Your task to perform on an android device: Where can I buy a nice beach cooler? Image 0: 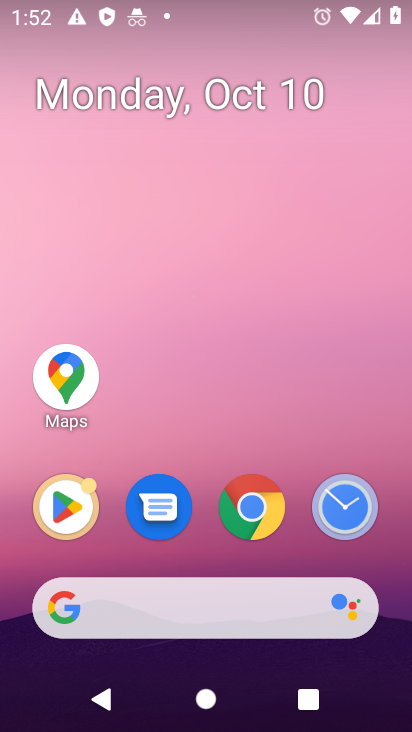
Step 0: press home button
Your task to perform on an android device: Where can I buy a nice beach cooler? Image 1: 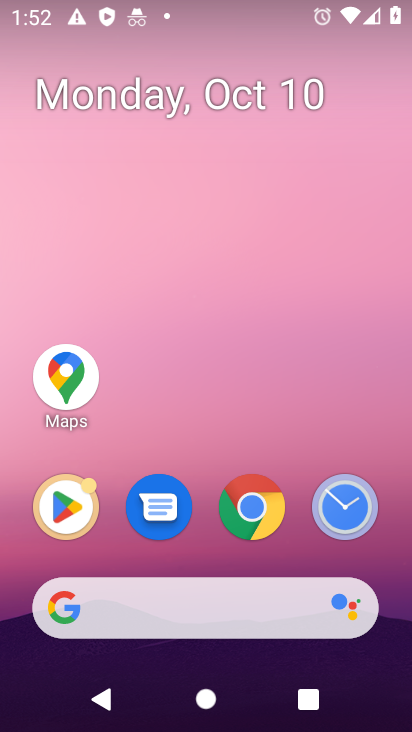
Step 1: click (211, 600)
Your task to perform on an android device: Where can I buy a nice beach cooler? Image 2: 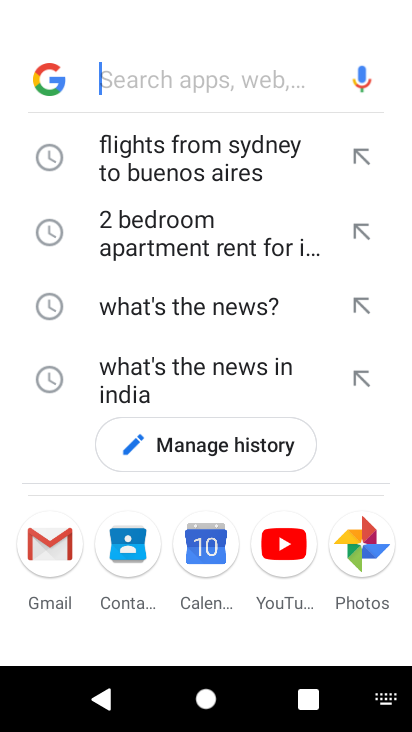
Step 2: type "Where can I buy a nice beach cooler"
Your task to perform on an android device: Where can I buy a nice beach cooler? Image 3: 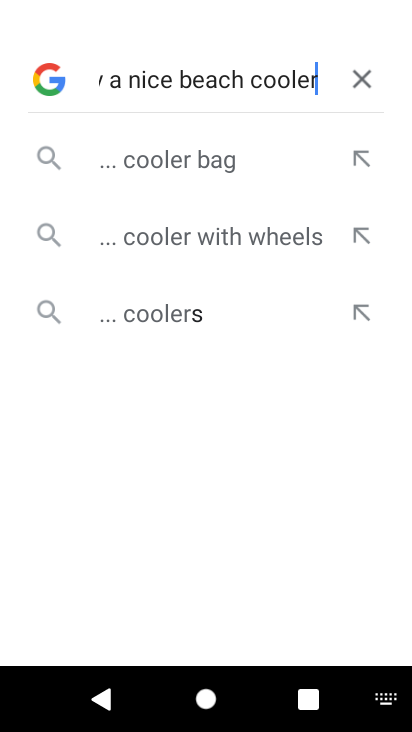
Step 3: press enter
Your task to perform on an android device: Where can I buy a nice beach cooler? Image 4: 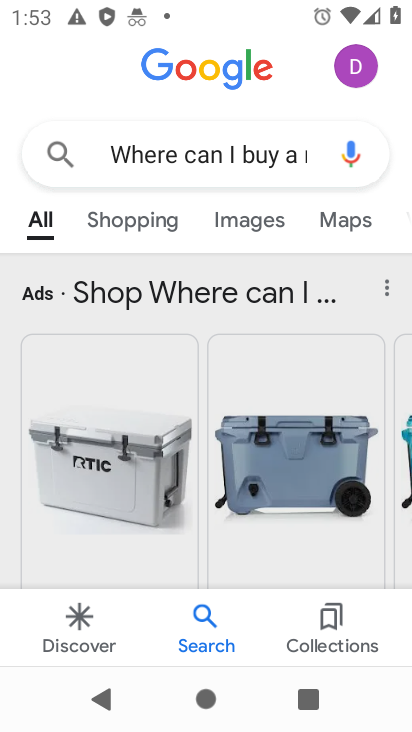
Step 4: task complete